Your task to perform on an android device: turn vacation reply on in the gmail app Image 0: 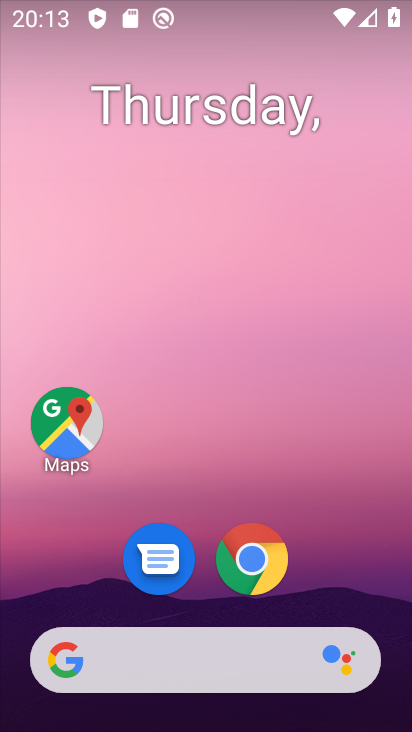
Step 0: drag from (172, 666) to (246, 140)
Your task to perform on an android device: turn vacation reply on in the gmail app Image 1: 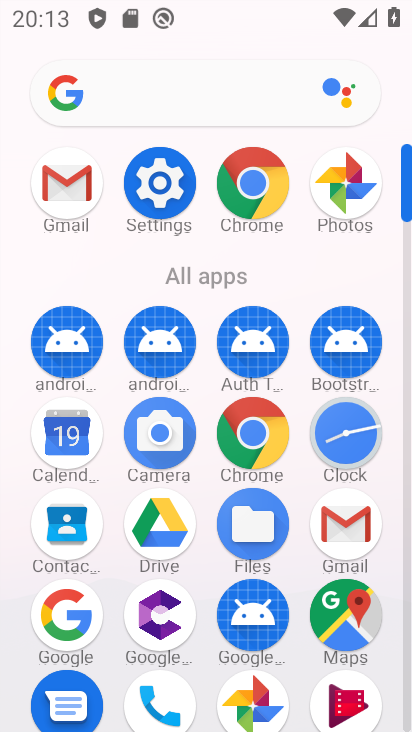
Step 1: click (50, 181)
Your task to perform on an android device: turn vacation reply on in the gmail app Image 2: 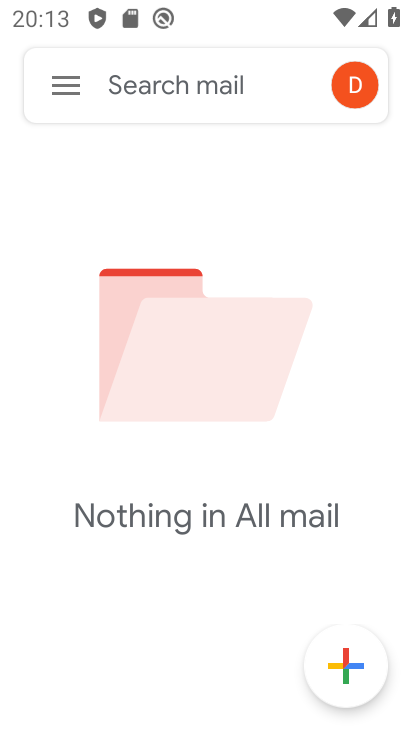
Step 2: click (58, 88)
Your task to perform on an android device: turn vacation reply on in the gmail app Image 3: 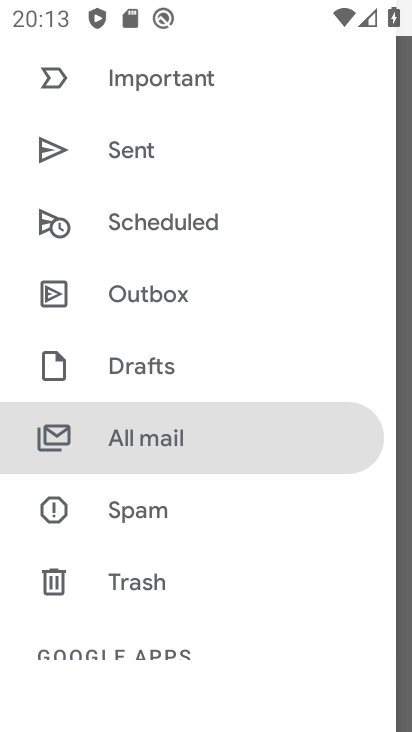
Step 3: drag from (167, 621) to (132, 103)
Your task to perform on an android device: turn vacation reply on in the gmail app Image 4: 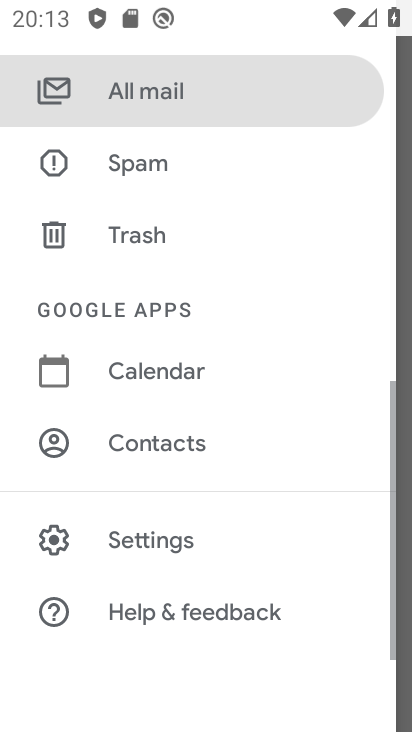
Step 4: click (163, 542)
Your task to perform on an android device: turn vacation reply on in the gmail app Image 5: 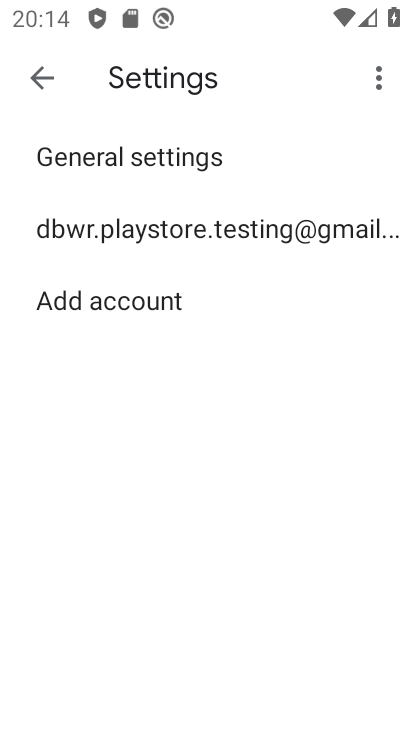
Step 5: click (136, 224)
Your task to perform on an android device: turn vacation reply on in the gmail app Image 6: 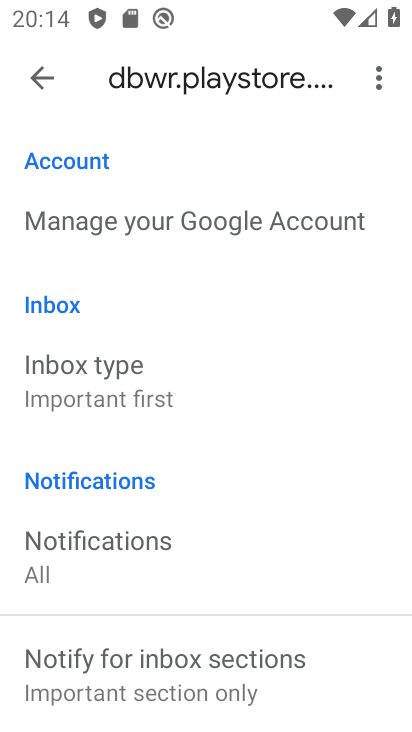
Step 6: drag from (148, 659) to (168, 182)
Your task to perform on an android device: turn vacation reply on in the gmail app Image 7: 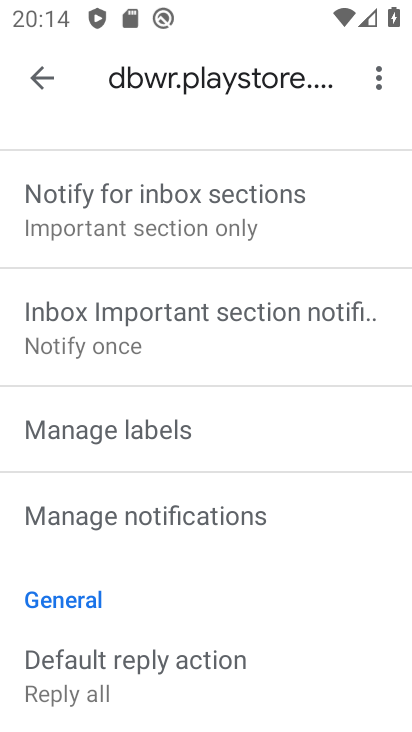
Step 7: drag from (161, 611) to (206, 107)
Your task to perform on an android device: turn vacation reply on in the gmail app Image 8: 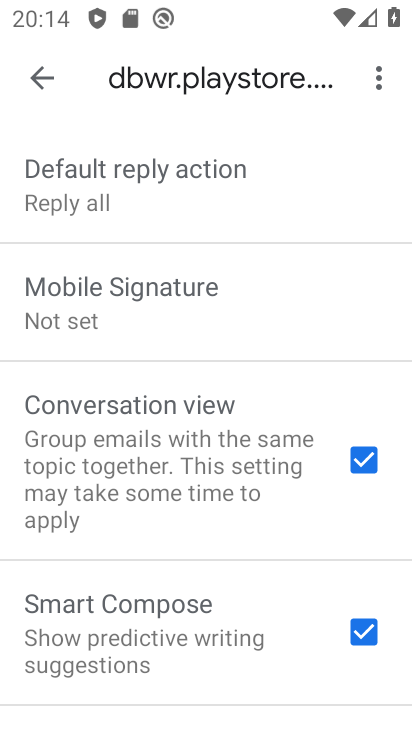
Step 8: drag from (156, 604) to (152, 205)
Your task to perform on an android device: turn vacation reply on in the gmail app Image 9: 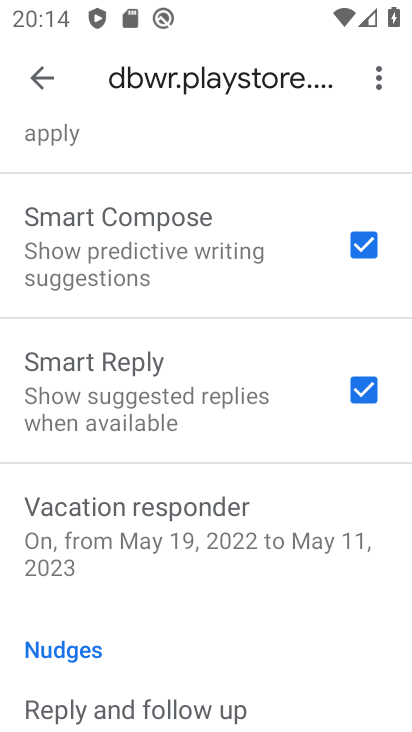
Step 9: click (159, 512)
Your task to perform on an android device: turn vacation reply on in the gmail app Image 10: 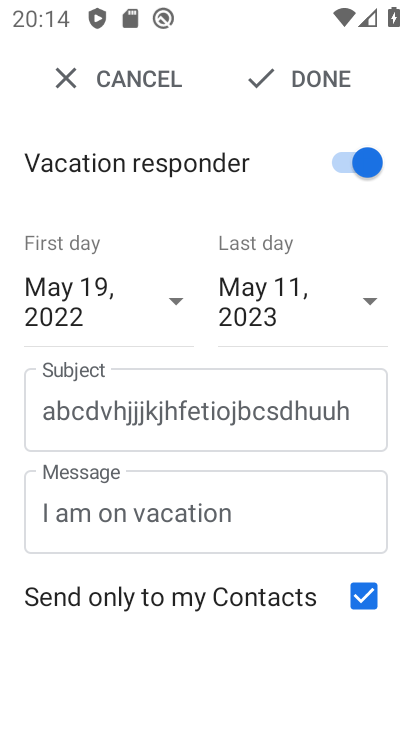
Step 10: click (283, 63)
Your task to perform on an android device: turn vacation reply on in the gmail app Image 11: 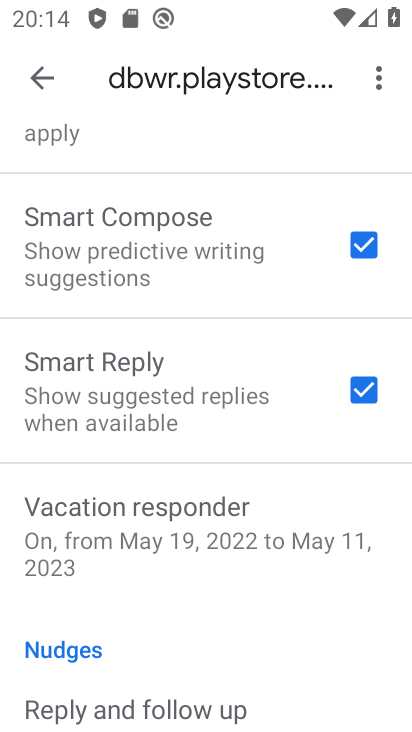
Step 11: task complete